Your task to perform on an android device: turn notification dots on Image 0: 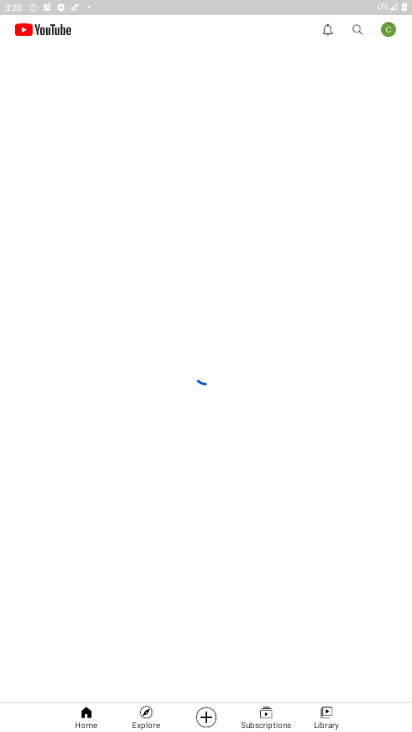
Step 0: press home button
Your task to perform on an android device: turn notification dots on Image 1: 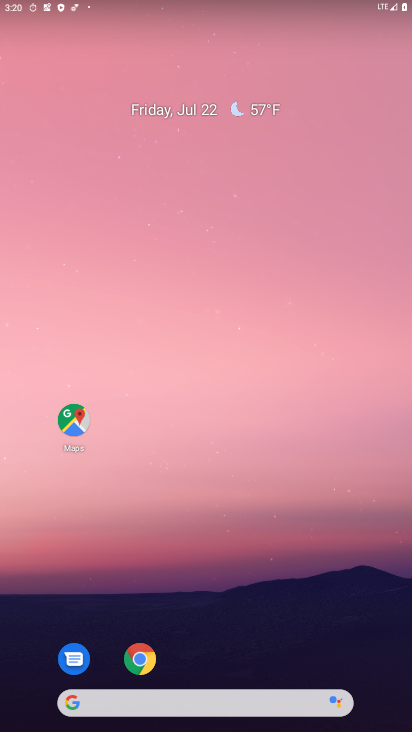
Step 1: drag from (262, 656) to (262, 68)
Your task to perform on an android device: turn notification dots on Image 2: 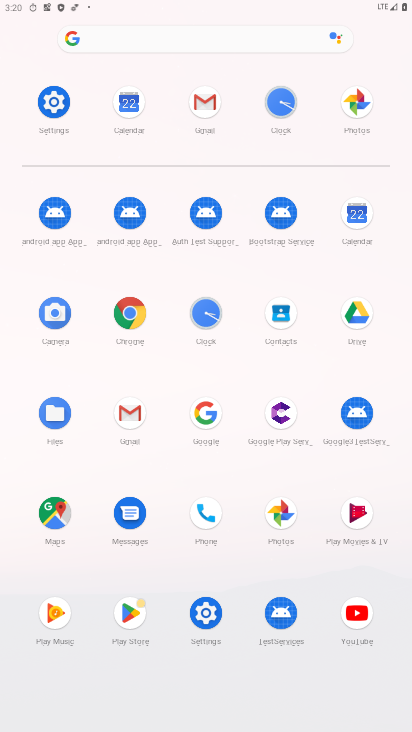
Step 2: click (209, 596)
Your task to perform on an android device: turn notification dots on Image 3: 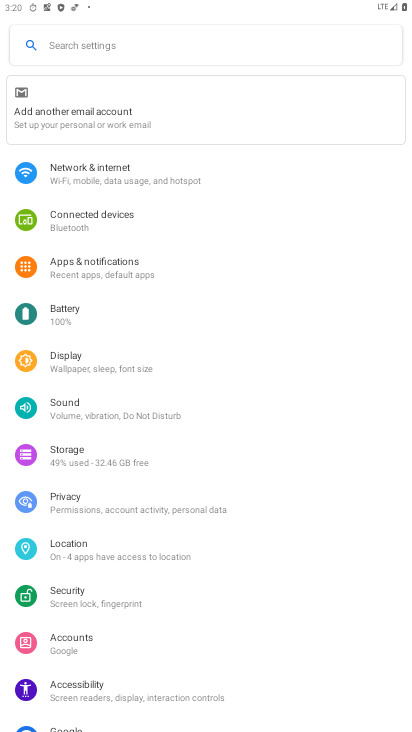
Step 3: click (66, 273)
Your task to perform on an android device: turn notification dots on Image 4: 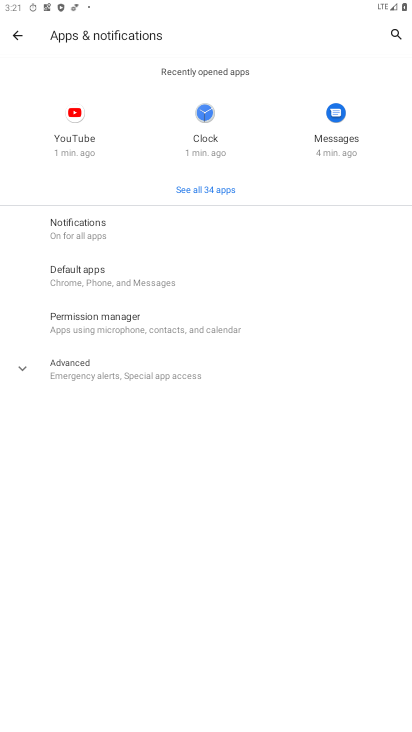
Step 4: click (60, 230)
Your task to perform on an android device: turn notification dots on Image 5: 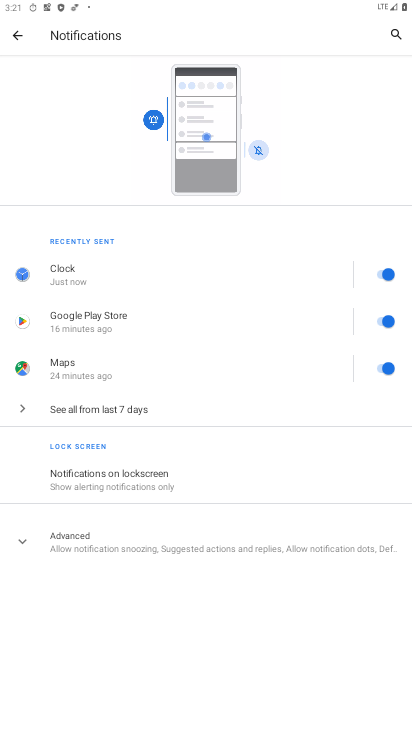
Step 5: click (76, 529)
Your task to perform on an android device: turn notification dots on Image 6: 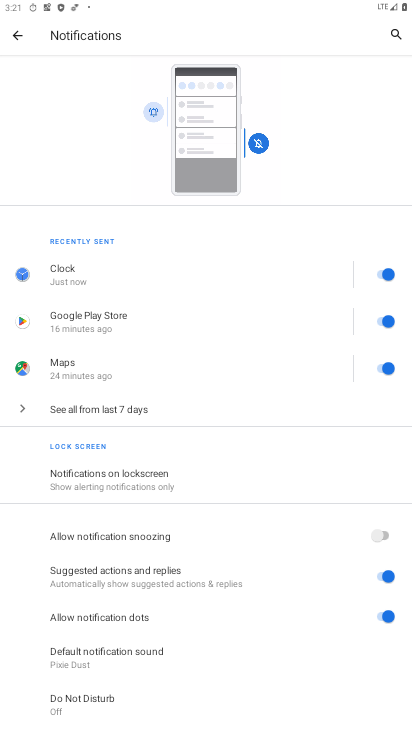
Step 6: task complete